Your task to perform on an android device: Go to CNN.com Image 0: 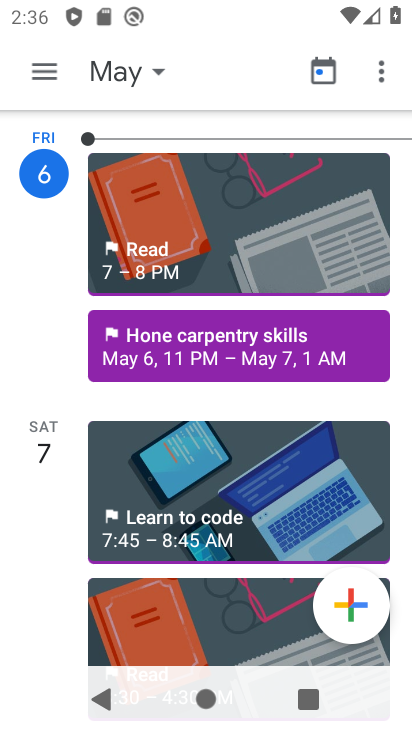
Step 0: press home button
Your task to perform on an android device: Go to CNN.com Image 1: 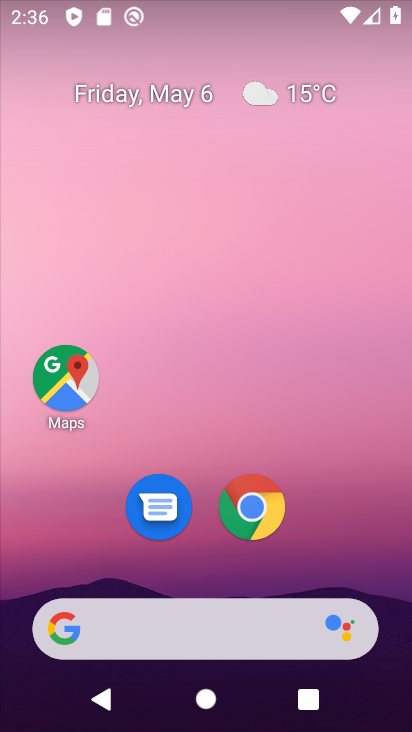
Step 1: drag from (362, 548) to (301, 174)
Your task to perform on an android device: Go to CNN.com Image 2: 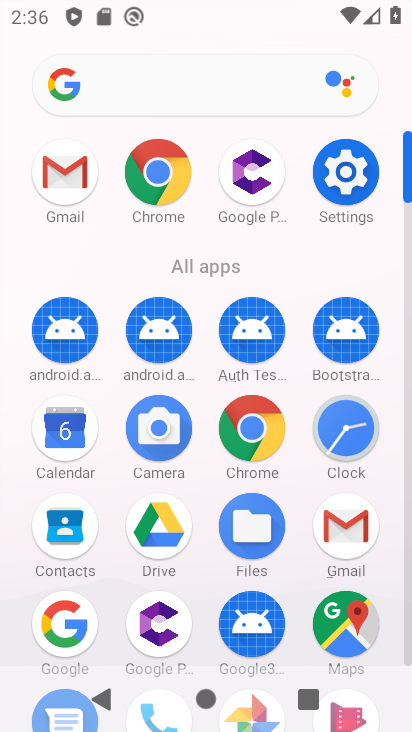
Step 2: click (167, 179)
Your task to perform on an android device: Go to CNN.com Image 3: 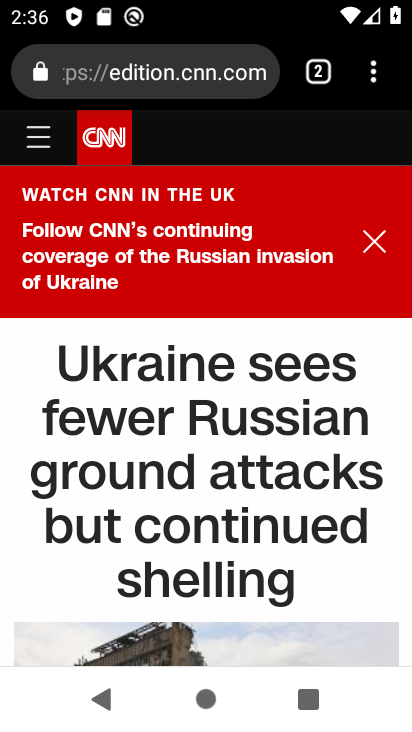
Step 3: task complete